Your task to perform on an android device: toggle sleep mode Image 0: 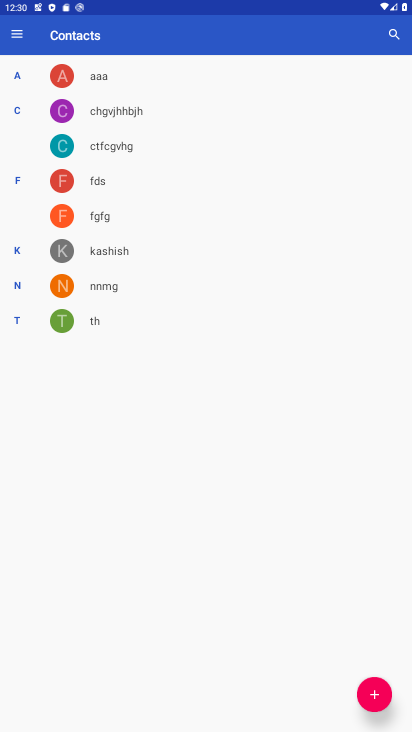
Step 0: press home button
Your task to perform on an android device: toggle sleep mode Image 1: 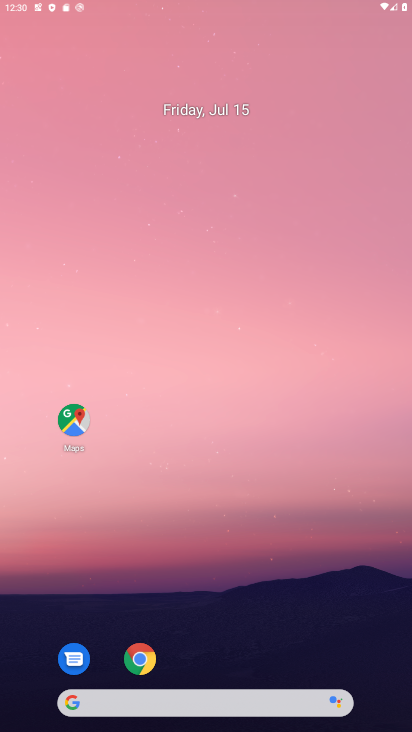
Step 1: drag from (229, 646) to (216, 215)
Your task to perform on an android device: toggle sleep mode Image 2: 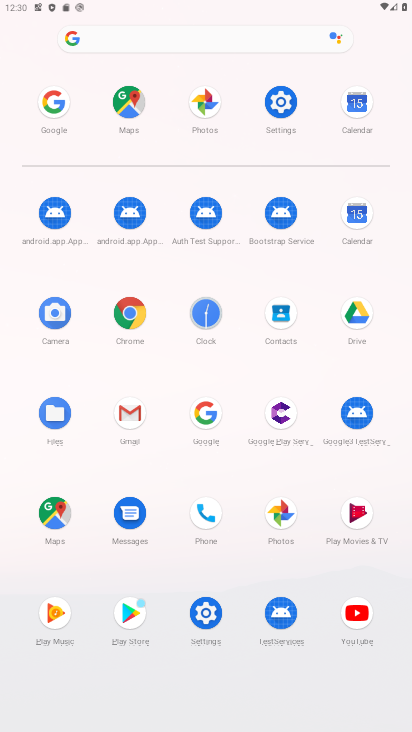
Step 2: click (261, 140)
Your task to perform on an android device: toggle sleep mode Image 3: 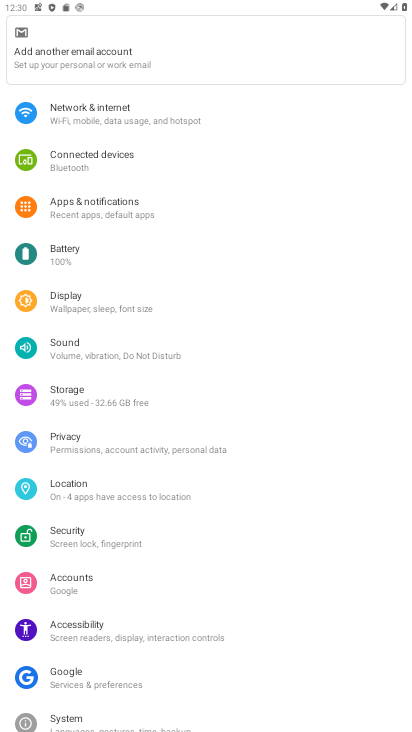
Step 3: click (105, 307)
Your task to perform on an android device: toggle sleep mode Image 4: 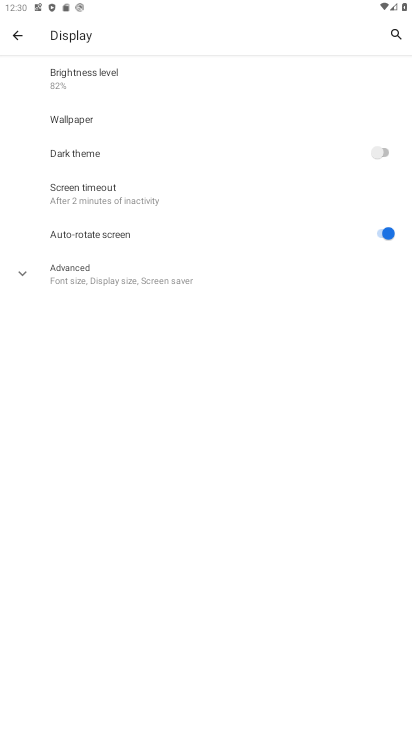
Step 4: click (112, 196)
Your task to perform on an android device: toggle sleep mode Image 5: 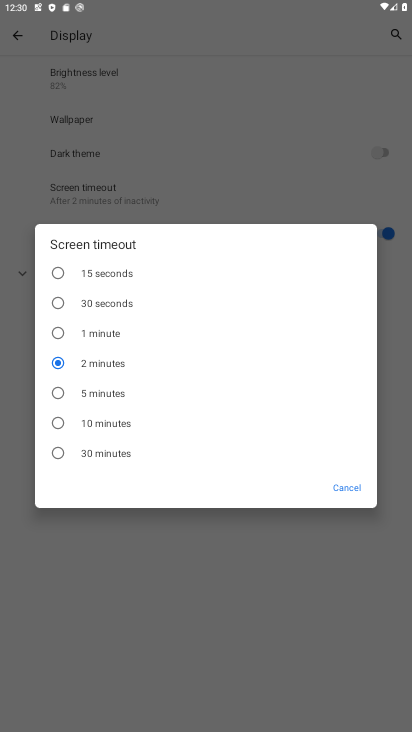
Step 5: click (129, 304)
Your task to perform on an android device: toggle sleep mode Image 6: 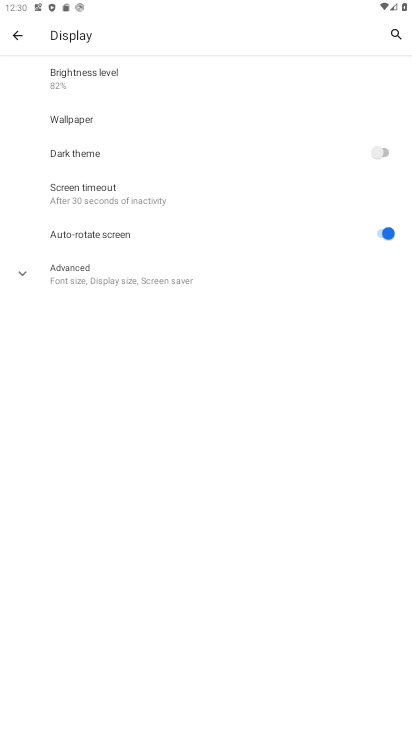
Step 6: task complete